Your task to perform on an android device: find snoozed emails in the gmail app Image 0: 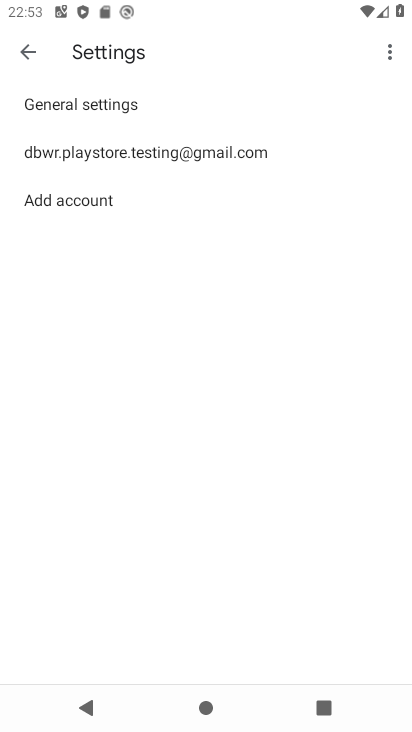
Step 0: press home button
Your task to perform on an android device: find snoozed emails in the gmail app Image 1: 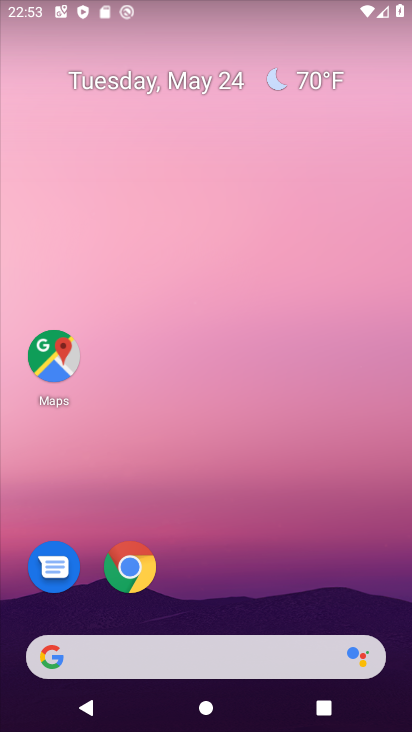
Step 1: drag from (273, 534) to (198, 50)
Your task to perform on an android device: find snoozed emails in the gmail app Image 2: 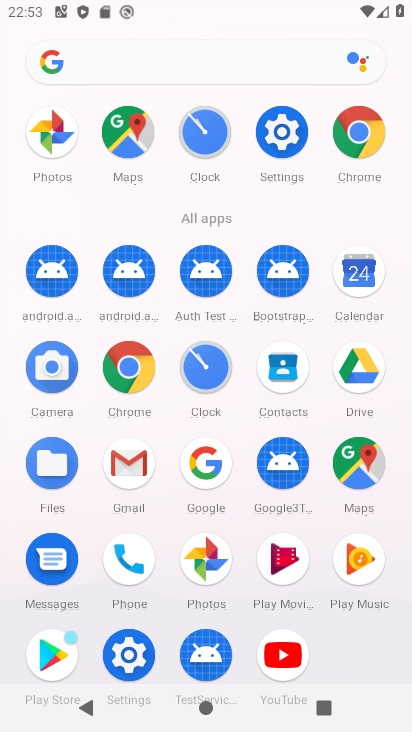
Step 2: click (138, 469)
Your task to perform on an android device: find snoozed emails in the gmail app Image 3: 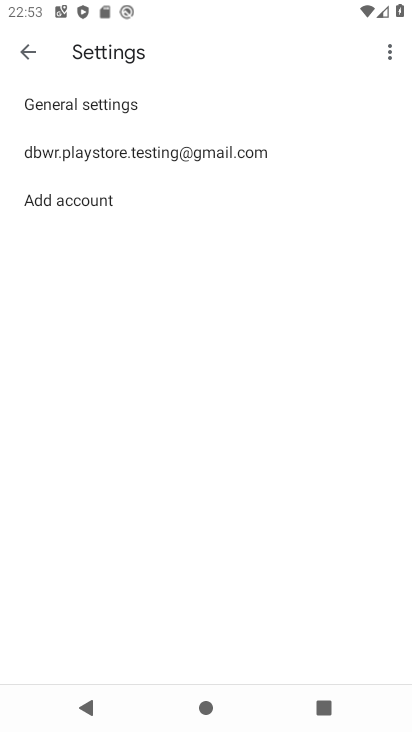
Step 3: click (29, 56)
Your task to perform on an android device: find snoozed emails in the gmail app Image 4: 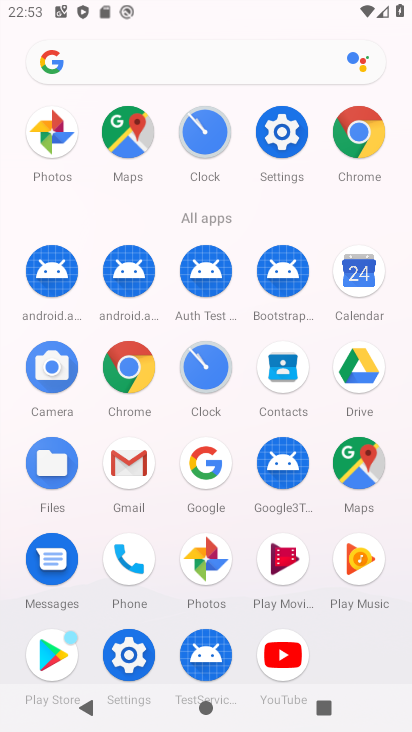
Step 4: click (135, 460)
Your task to perform on an android device: find snoozed emails in the gmail app Image 5: 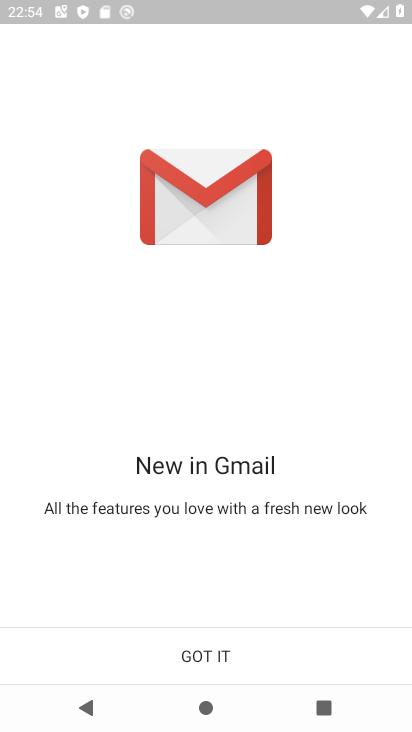
Step 5: click (232, 636)
Your task to perform on an android device: find snoozed emails in the gmail app Image 6: 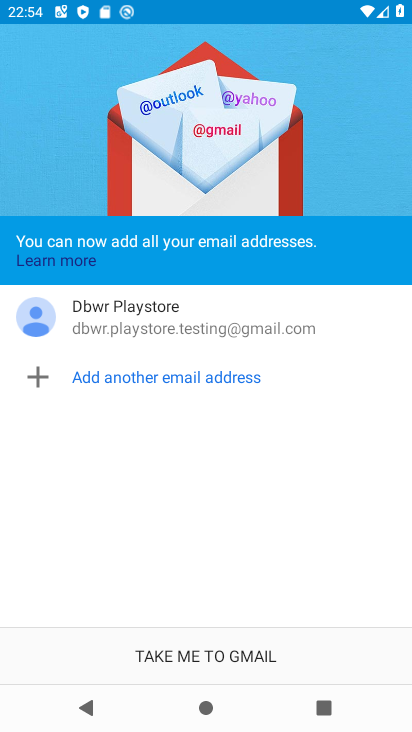
Step 6: click (198, 653)
Your task to perform on an android device: find snoozed emails in the gmail app Image 7: 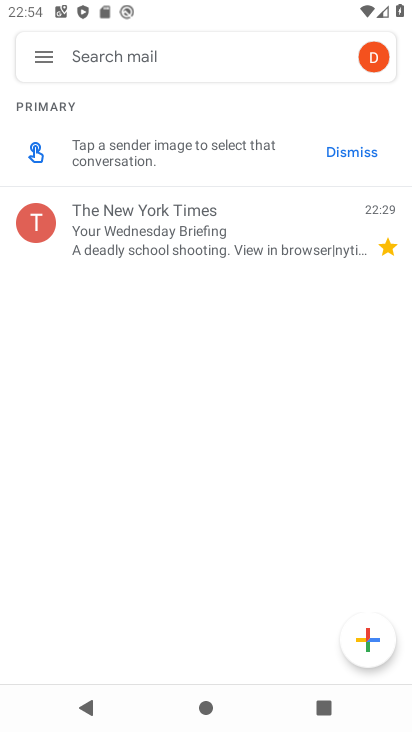
Step 7: click (231, 237)
Your task to perform on an android device: find snoozed emails in the gmail app Image 8: 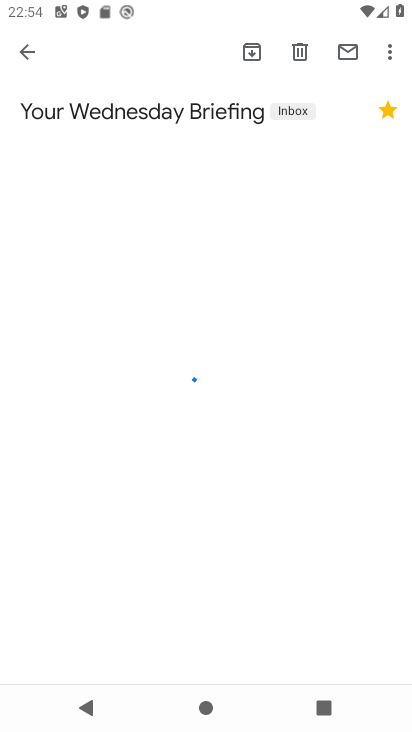
Step 8: click (386, 56)
Your task to perform on an android device: find snoozed emails in the gmail app Image 9: 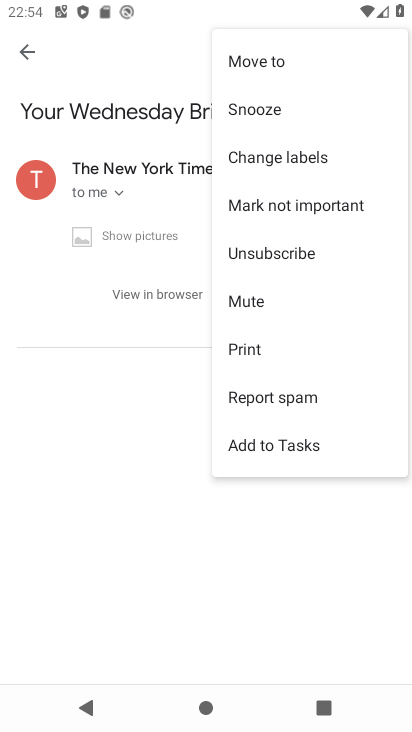
Step 9: click (267, 100)
Your task to perform on an android device: find snoozed emails in the gmail app Image 10: 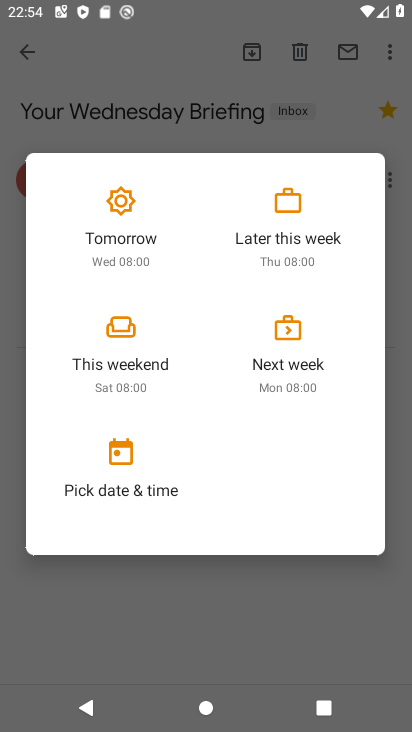
Step 10: task complete